Your task to perform on an android device: check battery use Image 0: 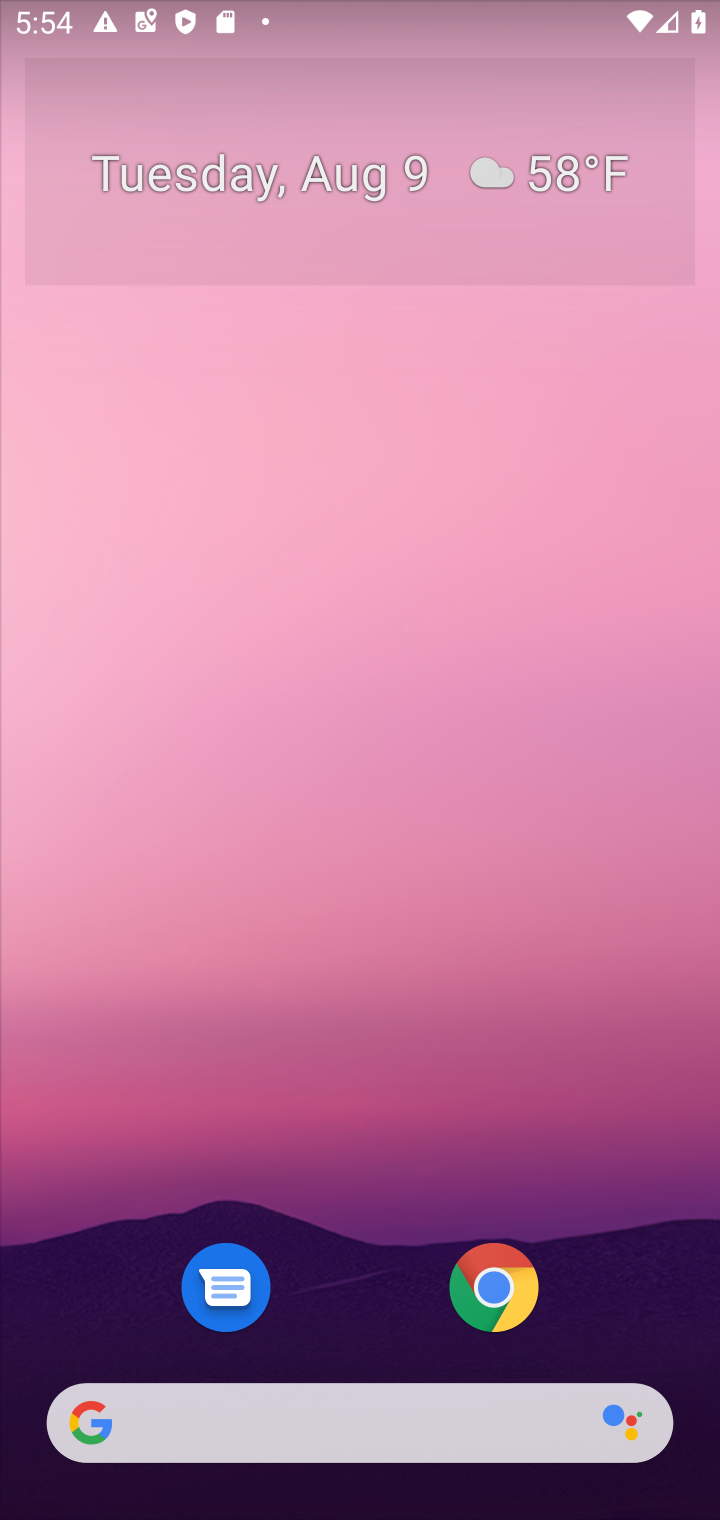
Step 0: drag from (416, 1109) to (441, 392)
Your task to perform on an android device: check battery use Image 1: 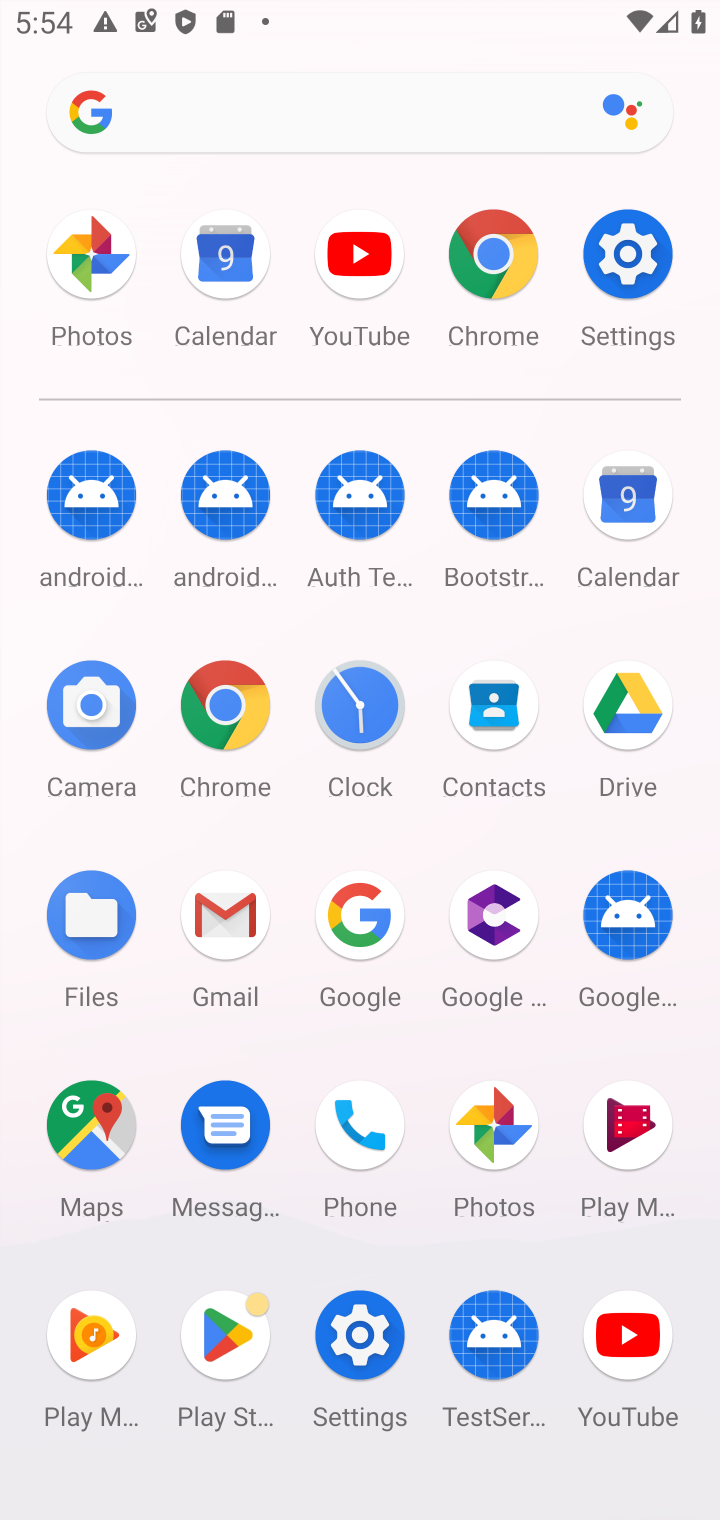
Step 1: click (620, 282)
Your task to perform on an android device: check battery use Image 2: 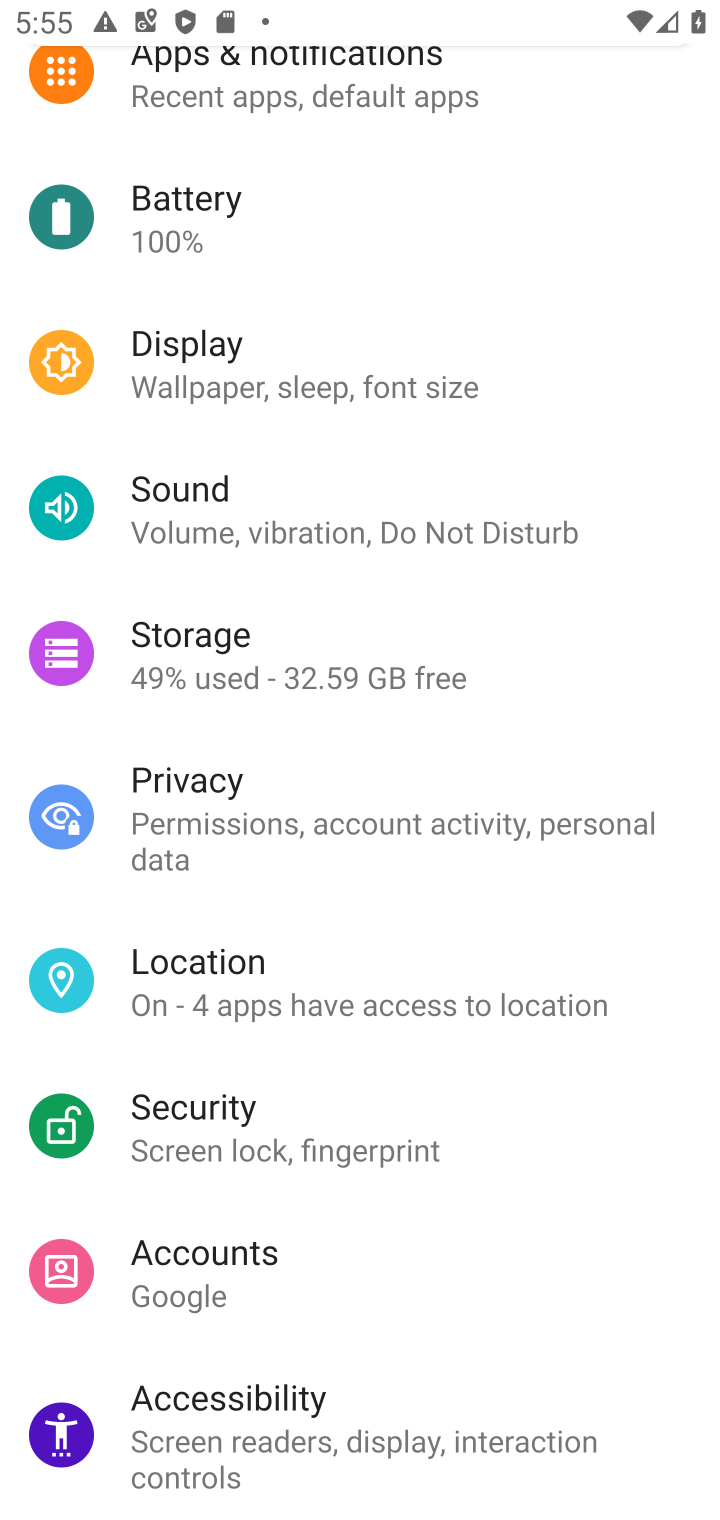
Step 2: click (273, 218)
Your task to perform on an android device: check battery use Image 3: 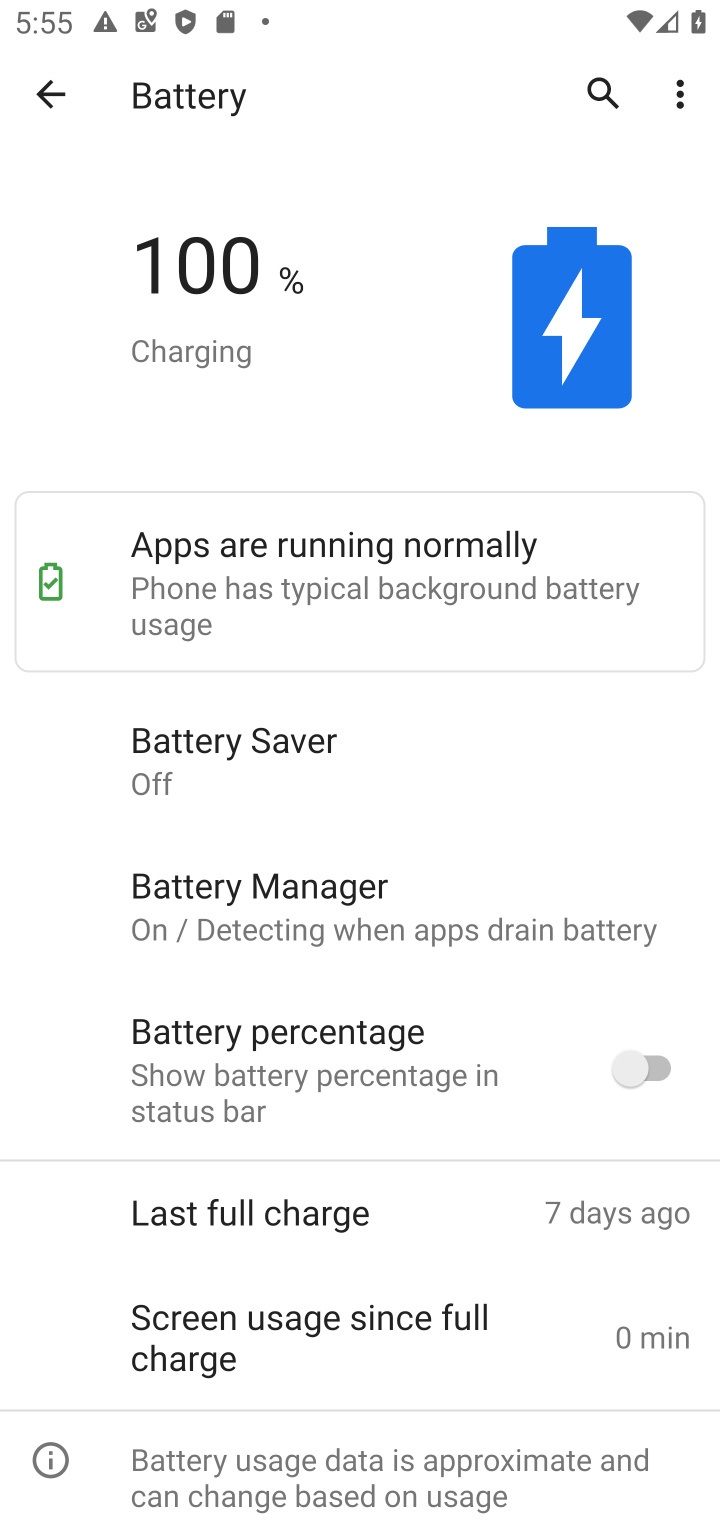
Step 3: task complete